Your task to perform on an android device: clear all cookies in the chrome app Image 0: 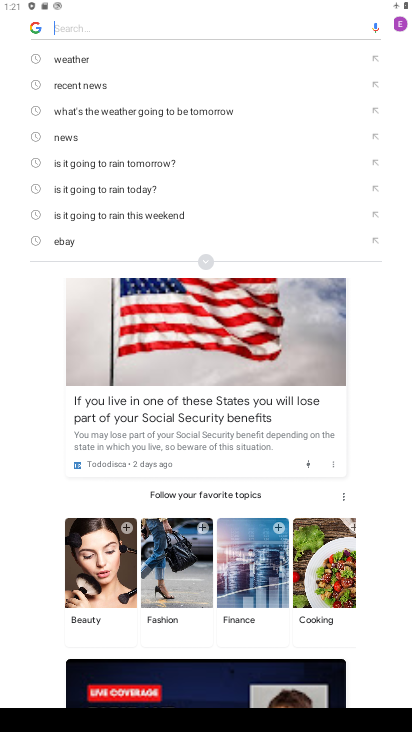
Step 0: press home button
Your task to perform on an android device: clear all cookies in the chrome app Image 1: 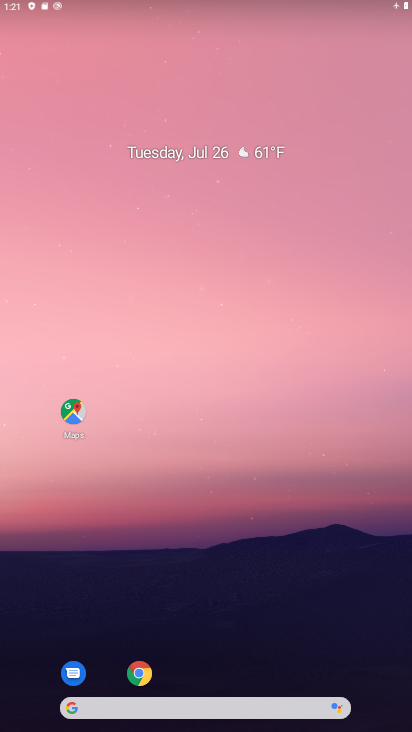
Step 1: drag from (166, 657) to (213, 0)
Your task to perform on an android device: clear all cookies in the chrome app Image 2: 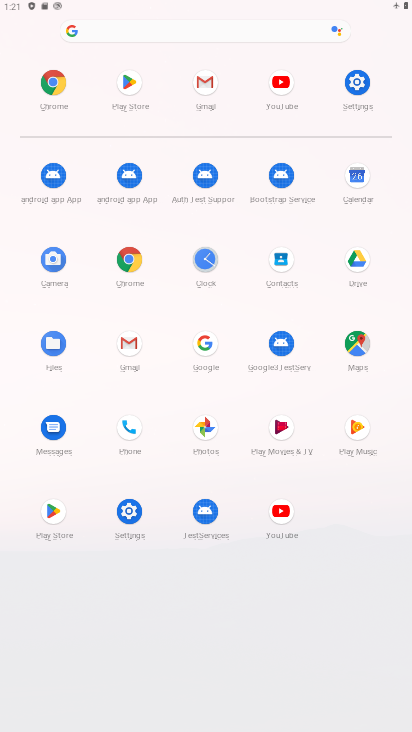
Step 2: click (135, 257)
Your task to perform on an android device: clear all cookies in the chrome app Image 3: 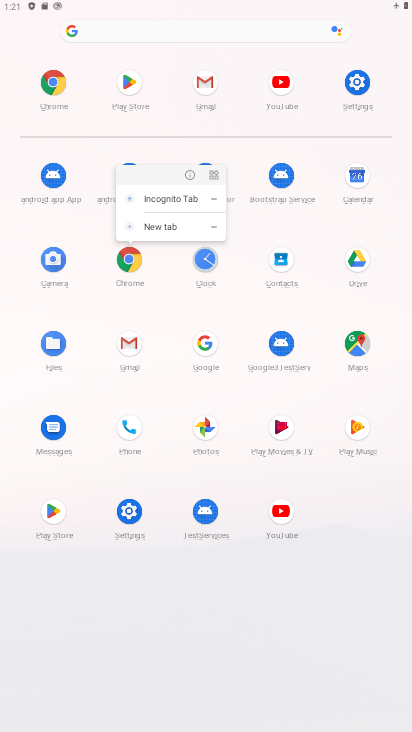
Step 3: click (186, 175)
Your task to perform on an android device: clear all cookies in the chrome app Image 4: 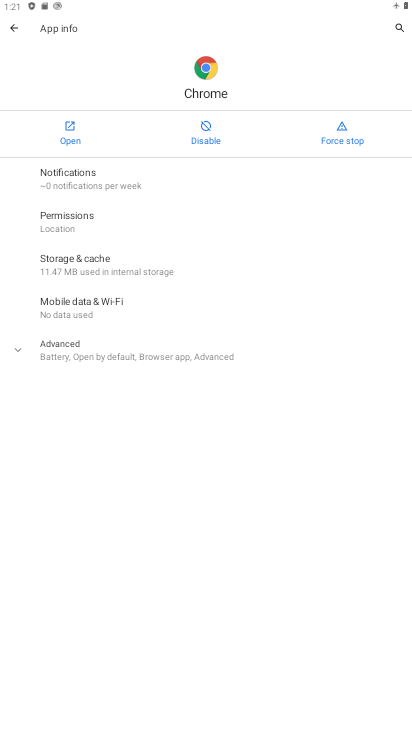
Step 4: click (57, 128)
Your task to perform on an android device: clear all cookies in the chrome app Image 5: 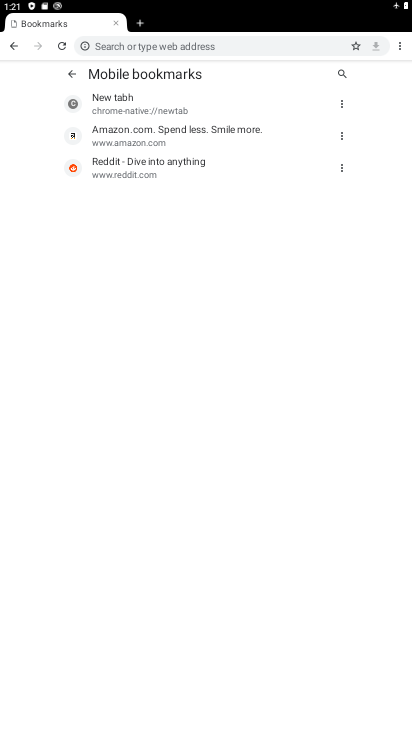
Step 5: drag from (403, 45) to (327, 139)
Your task to perform on an android device: clear all cookies in the chrome app Image 6: 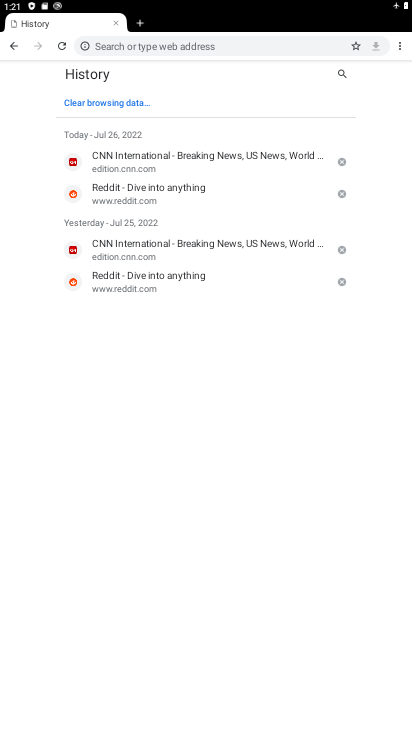
Step 6: click (93, 106)
Your task to perform on an android device: clear all cookies in the chrome app Image 7: 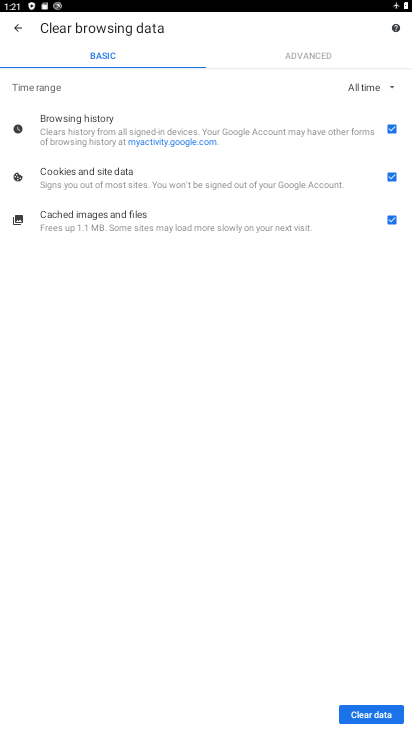
Step 7: click (405, 115)
Your task to perform on an android device: clear all cookies in the chrome app Image 8: 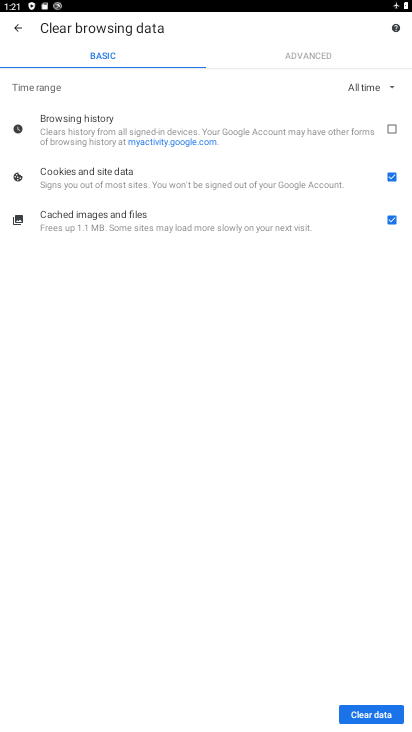
Step 8: click (368, 219)
Your task to perform on an android device: clear all cookies in the chrome app Image 9: 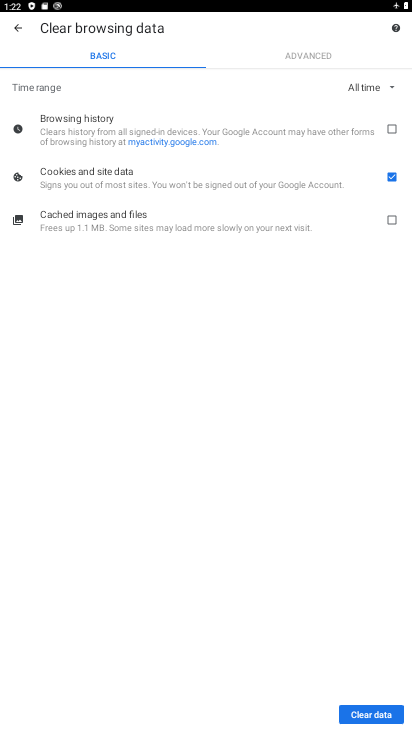
Step 9: click (364, 714)
Your task to perform on an android device: clear all cookies in the chrome app Image 10: 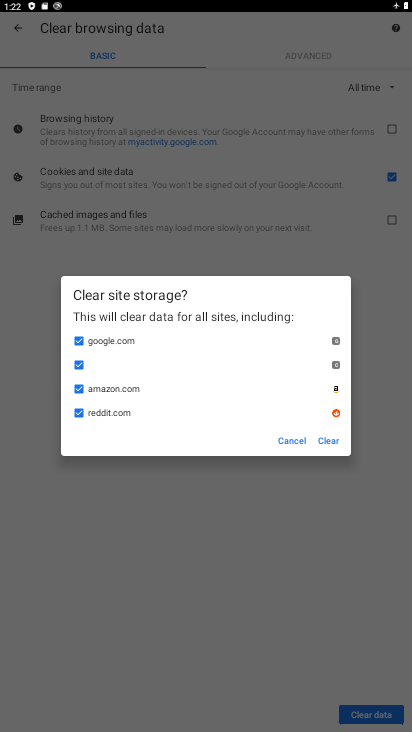
Step 10: click (326, 431)
Your task to perform on an android device: clear all cookies in the chrome app Image 11: 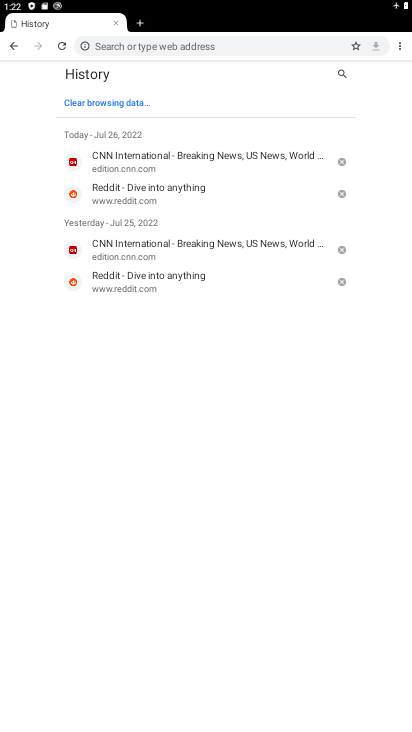
Step 11: task complete